Your task to perform on an android device: read, delete, or share a saved page in the chrome app Image 0: 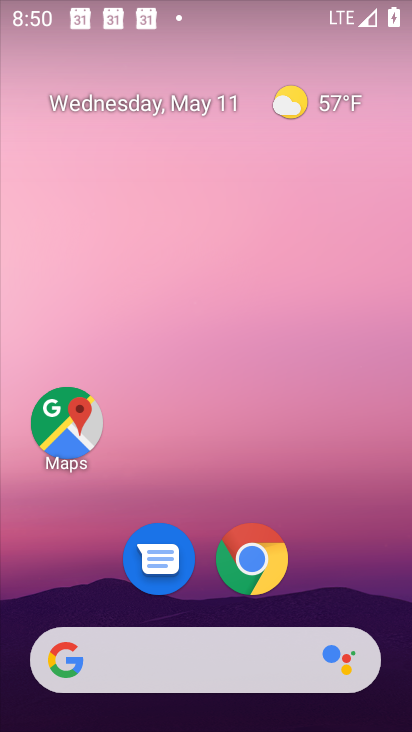
Step 0: click (259, 562)
Your task to perform on an android device: read, delete, or share a saved page in the chrome app Image 1: 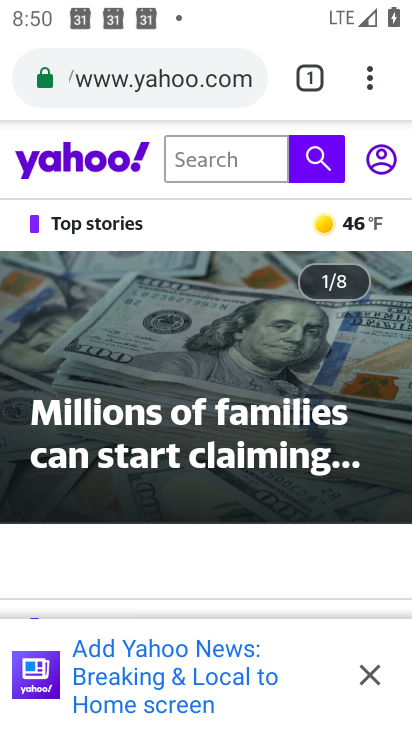
Step 1: click (367, 83)
Your task to perform on an android device: read, delete, or share a saved page in the chrome app Image 2: 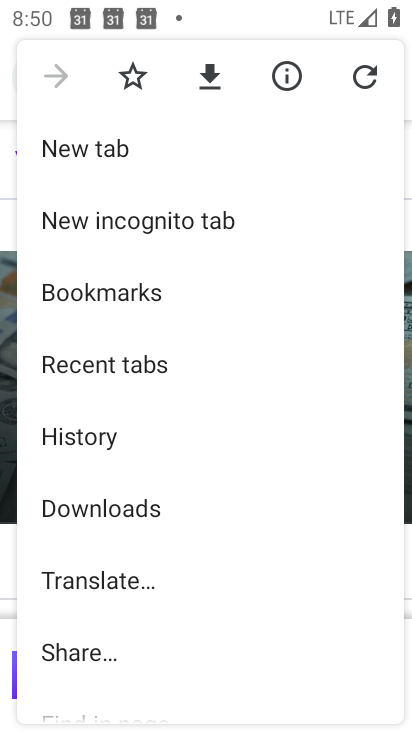
Step 2: click (152, 519)
Your task to perform on an android device: read, delete, or share a saved page in the chrome app Image 3: 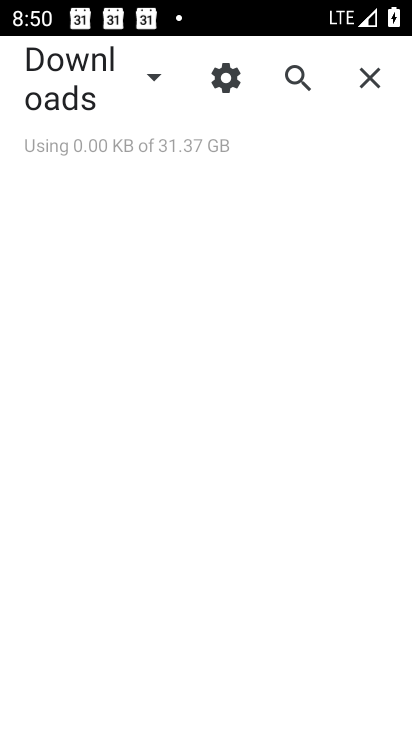
Step 3: click (142, 81)
Your task to perform on an android device: read, delete, or share a saved page in the chrome app Image 4: 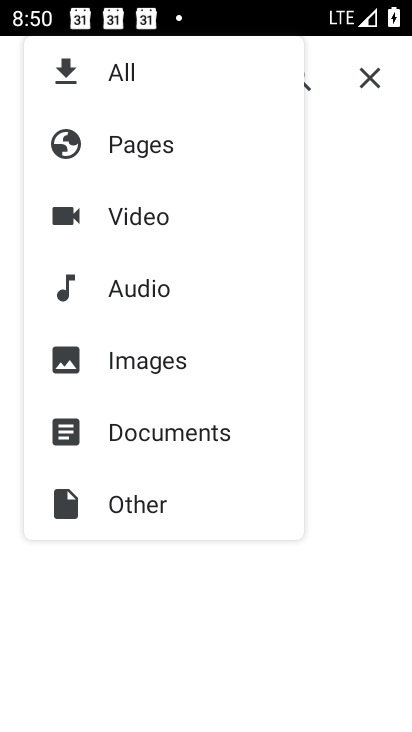
Step 4: click (147, 133)
Your task to perform on an android device: read, delete, or share a saved page in the chrome app Image 5: 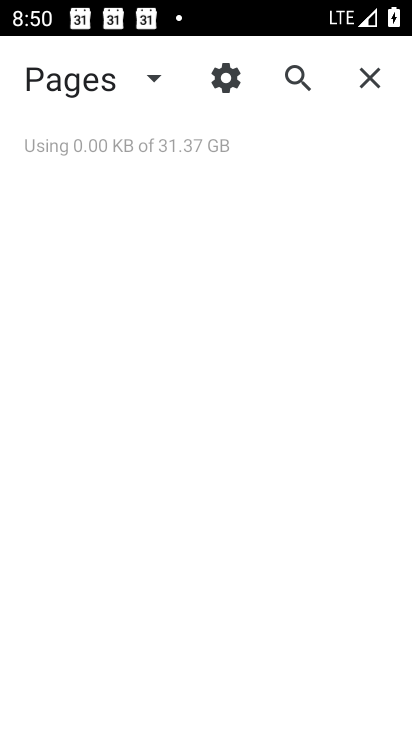
Step 5: task complete